Your task to perform on an android device: Open the calendar app, open the side menu, and click the "Day" option Image 0: 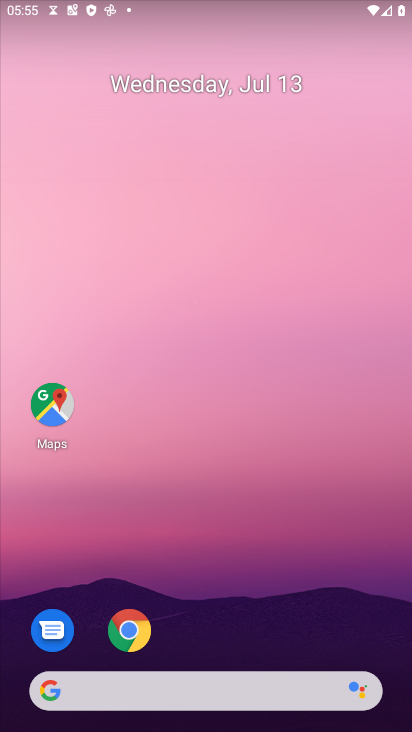
Step 0: drag from (240, 683) to (197, 116)
Your task to perform on an android device: Open the calendar app, open the side menu, and click the "Day" option Image 1: 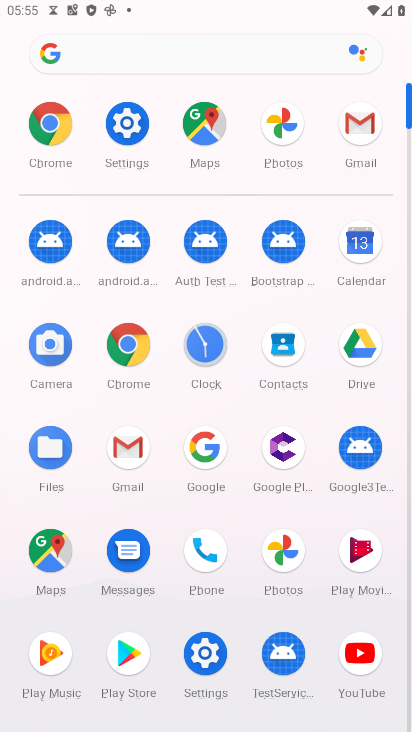
Step 1: click (367, 252)
Your task to perform on an android device: Open the calendar app, open the side menu, and click the "Day" option Image 2: 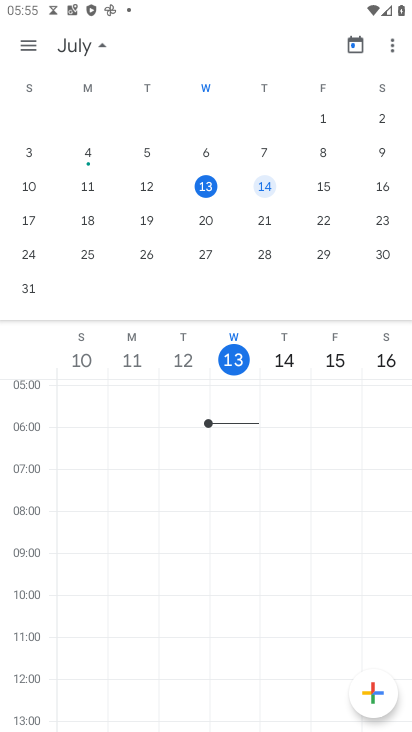
Step 2: click (35, 35)
Your task to perform on an android device: Open the calendar app, open the side menu, and click the "Day" option Image 3: 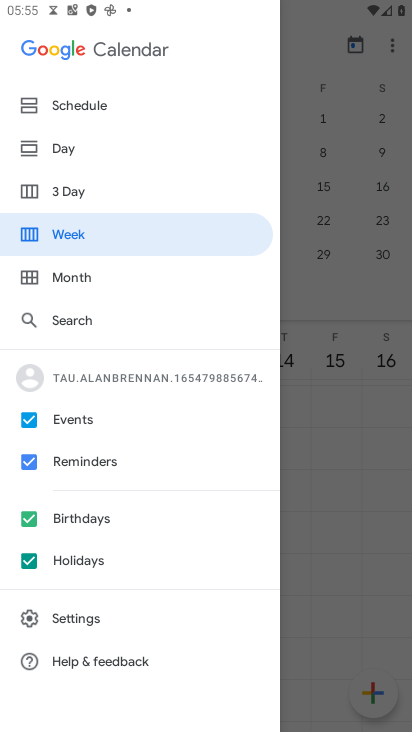
Step 3: click (78, 148)
Your task to perform on an android device: Open the calendar app, open the side menu, and click the "Day" option Image 4: 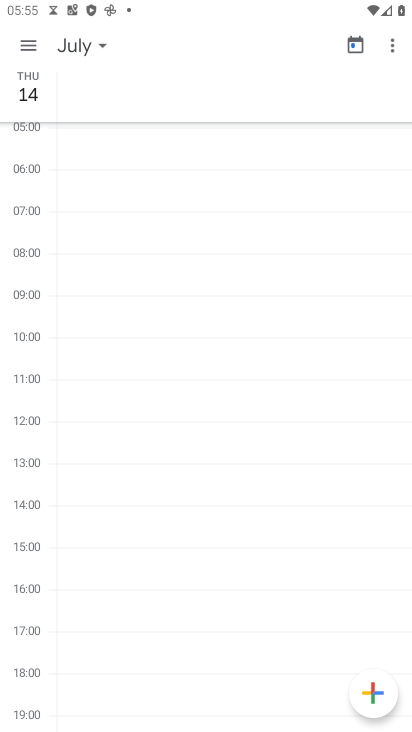
Step 4: task complete